Your task to perform on an android device: change notifications settings Image 0: 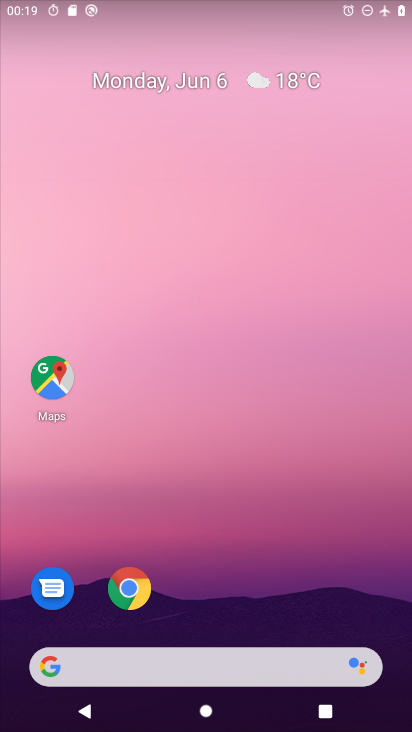
Step 0: drag from (371, 589) to (358, 240)
Your task to perform on an android device: change notifications settings Image 1: 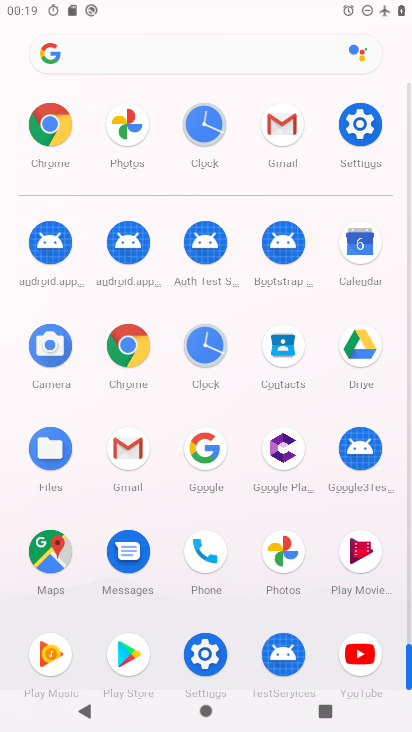
Step 1: click (370, 129)
Your task to perform on an android device: change notifications settings Image 2: 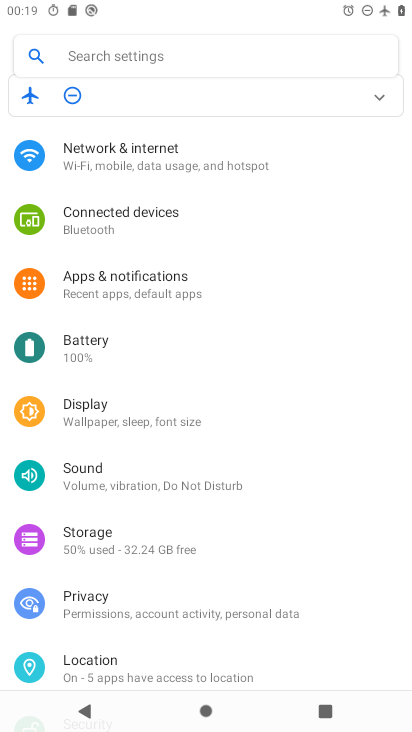
Step 2: drag from (337, 494) to (335, 331)
Your task to perform on an android device: change notifications settings Image 3: 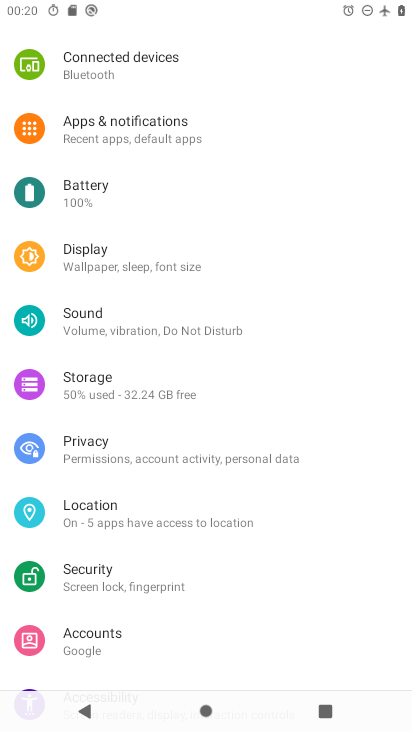
Step 3: drag from (368, 569) to (361, 406)
Your task to perform on an android device: change notifications settings Image 4: 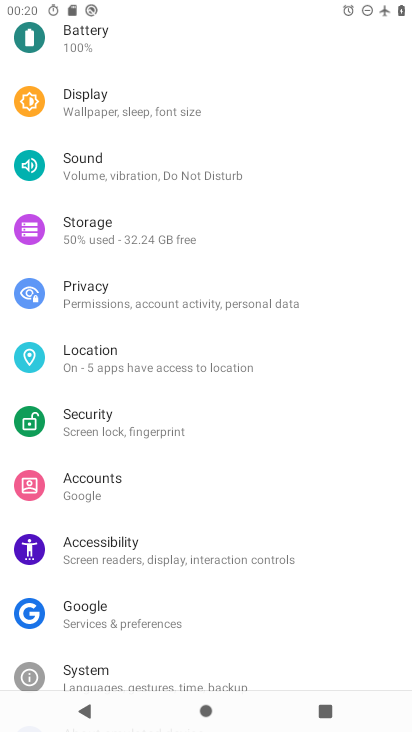
Step 4: click (358, 511)
Your task to perform on an android device: change notifications settings Image 5: 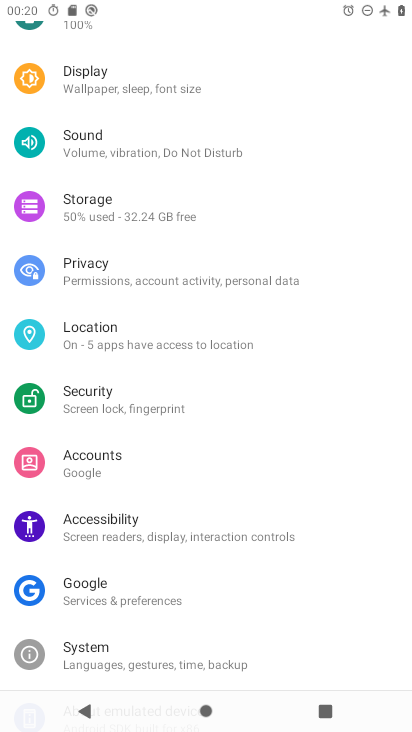
Step 5: drag from (347, 383) to (342, 470)
Your task to perform on an android device: change notifications settings Image 6: 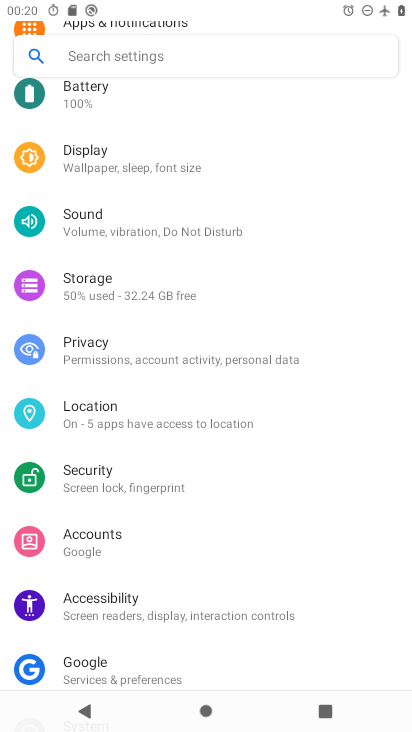
Step 6: drag from (314, 288) to (314, 361)
Your task to perform on an android device: change notifications settings Image 7: 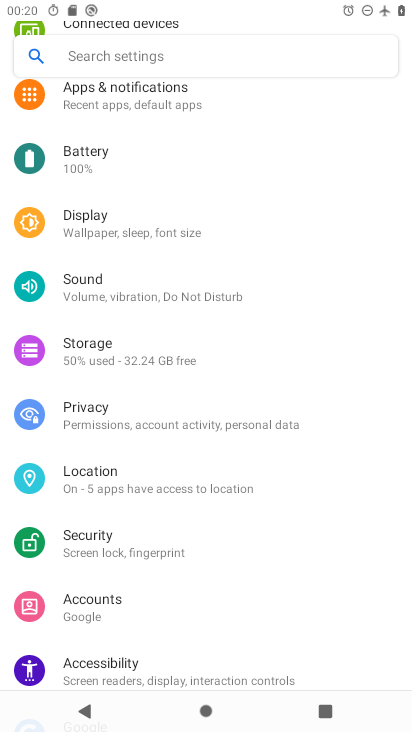
Step 7: drag from (314, 263) to (315, 394)
Your task to perform on an android device: change notifications settings Image 8: 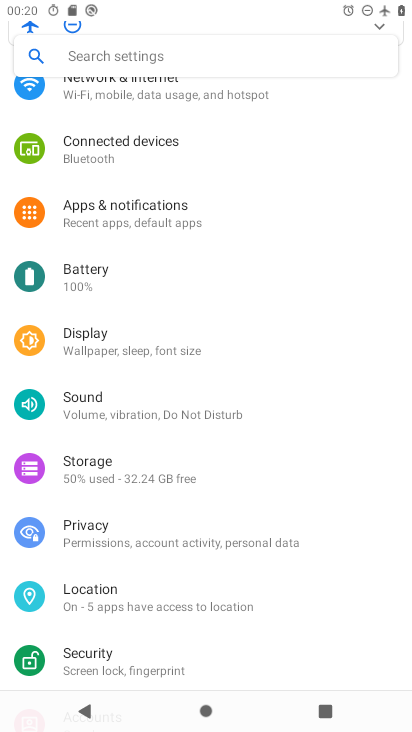
Step 8: drag from (315, 250) to (310, 372)
Your task to perform on an android device: change notifications settings Image 9: 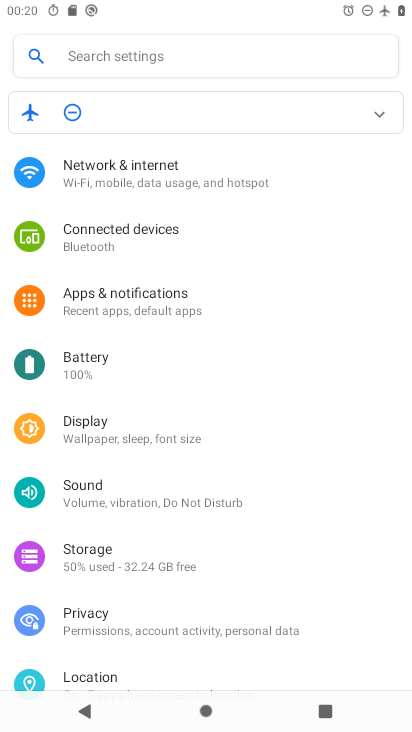
Step 9: click (223, 312)
Your task to perform on an android device: change notifications settings Image 10: 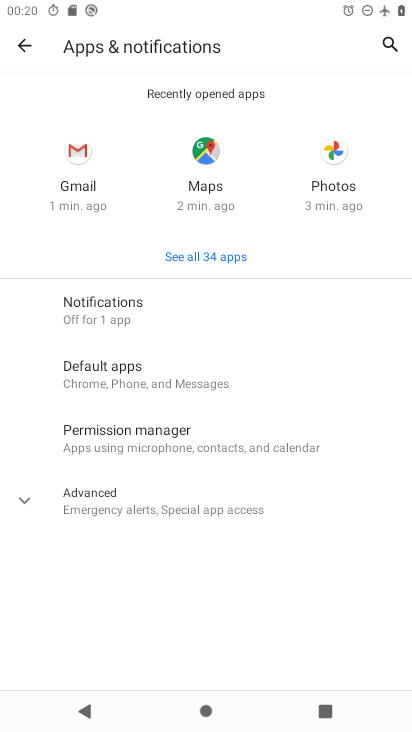
Step 10: click (146, 309)
Your task to perform on an android device: change notifications settings Image 11: 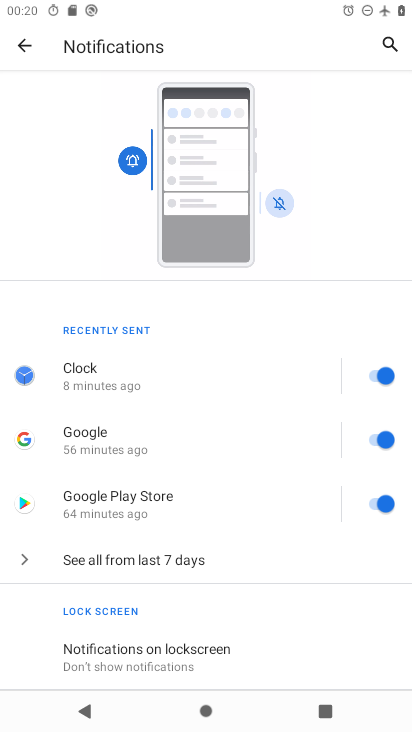
Step 11: click (385, 382)
Your task to perform on an android device: change notifications settings Image 12: 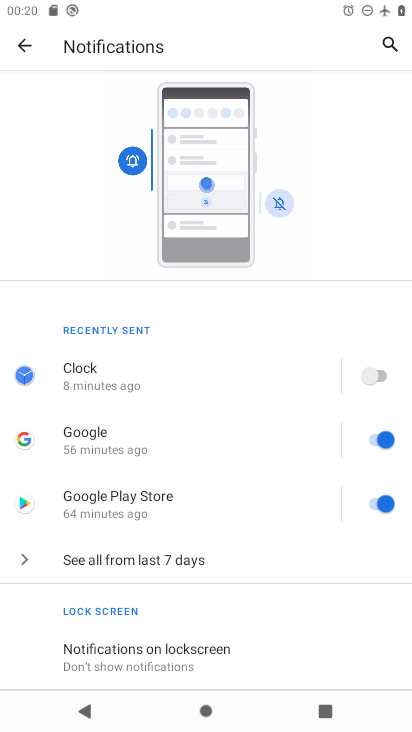
Step 12: click (374, 445)
Your task to perform on an android device: change notifications settings Image 13: 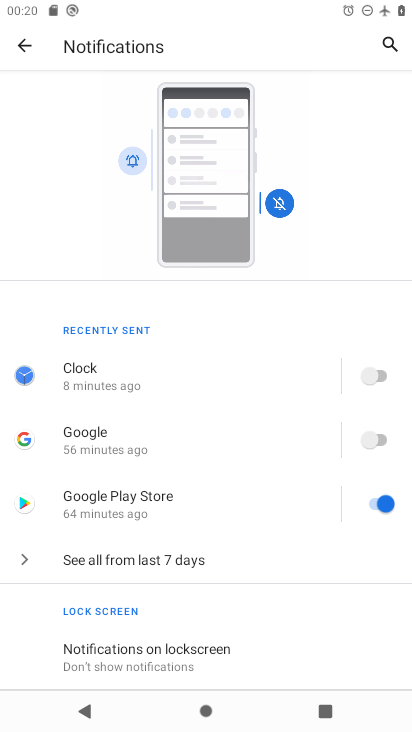
Step 13: click (370, 511)
Your task to perform on an android device: change notifications settings Image 14: 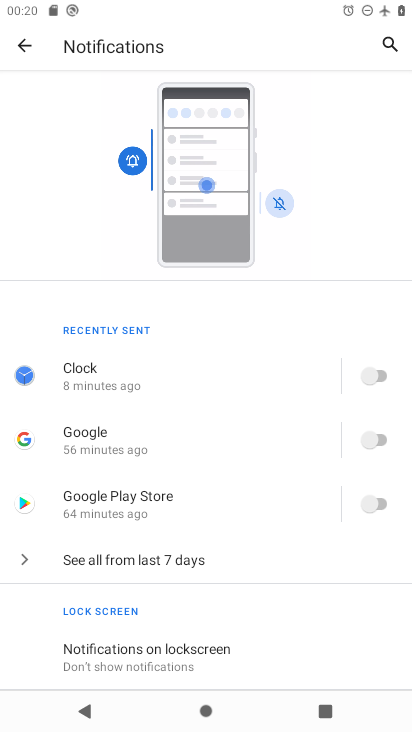
Step 14: task complete